Your task to perform on an android device: uninstall "McDonald's" Image 0: 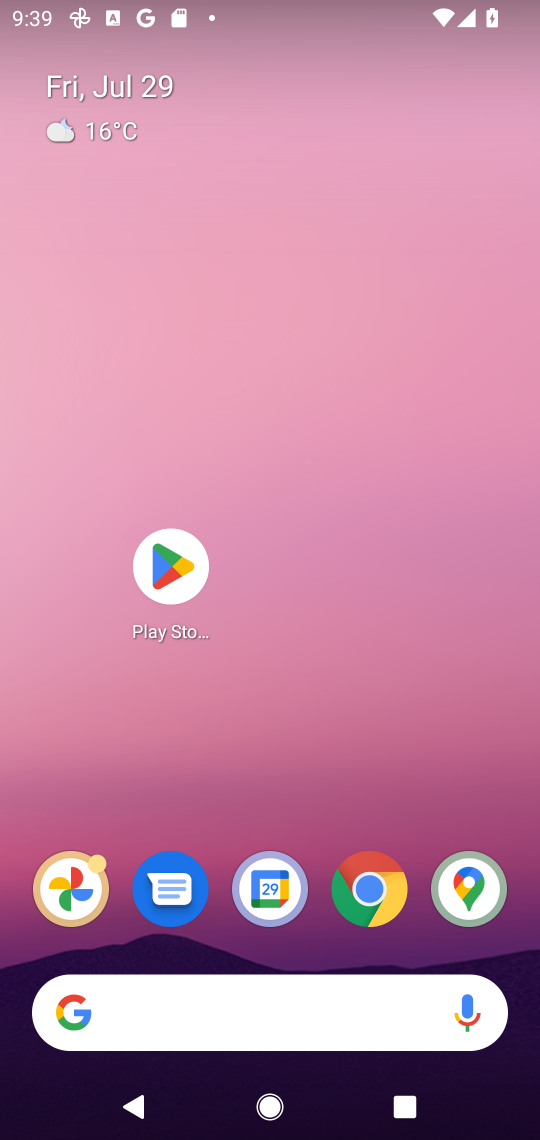
Step 0: click (166, 575)
Your task to perform on an android device: uninstall "McDonald's" Image 1: 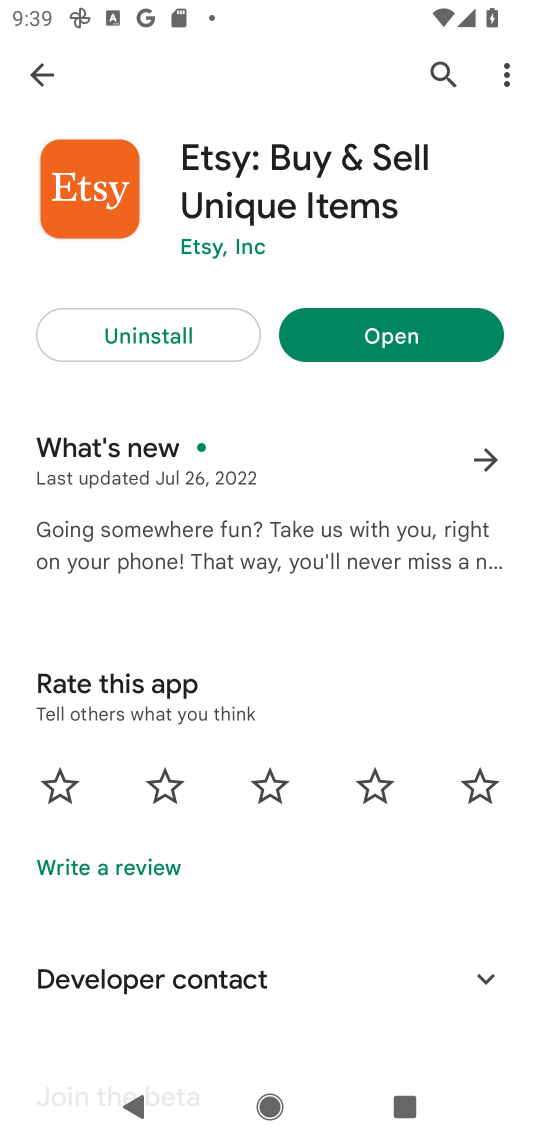
Step 1: click (442, 61)
Your task to perform on an android device: uninstall "McDonald's" Image 2: 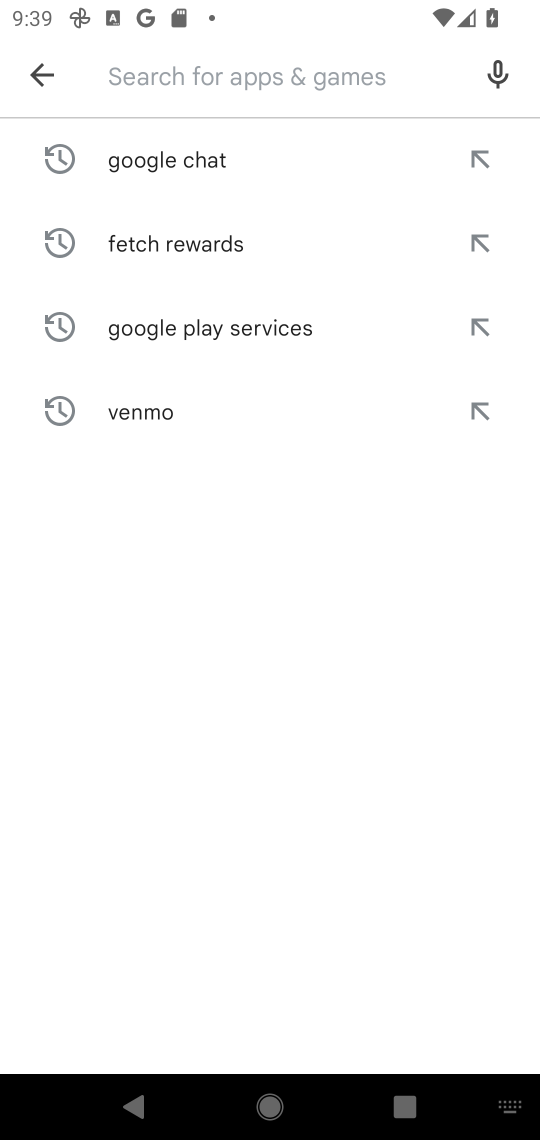
Step 2: type "McDonald's"
Your task to perform on an android device: uninstall "McDonald's" Image 3: 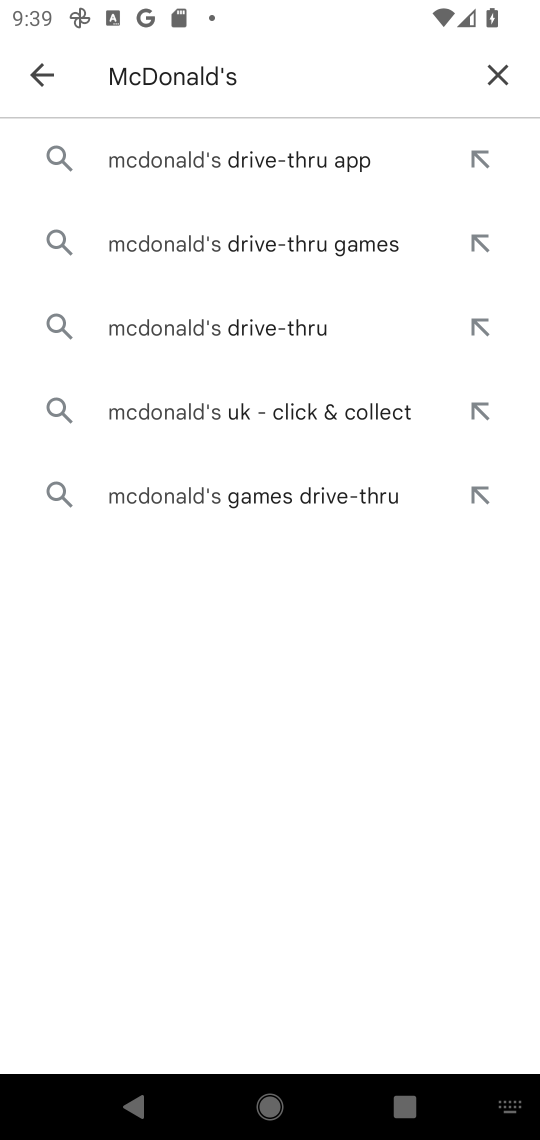
Step 3: click (190, 156)
Your task to perform on an android device: uninstall "McDonald's" Image 4: 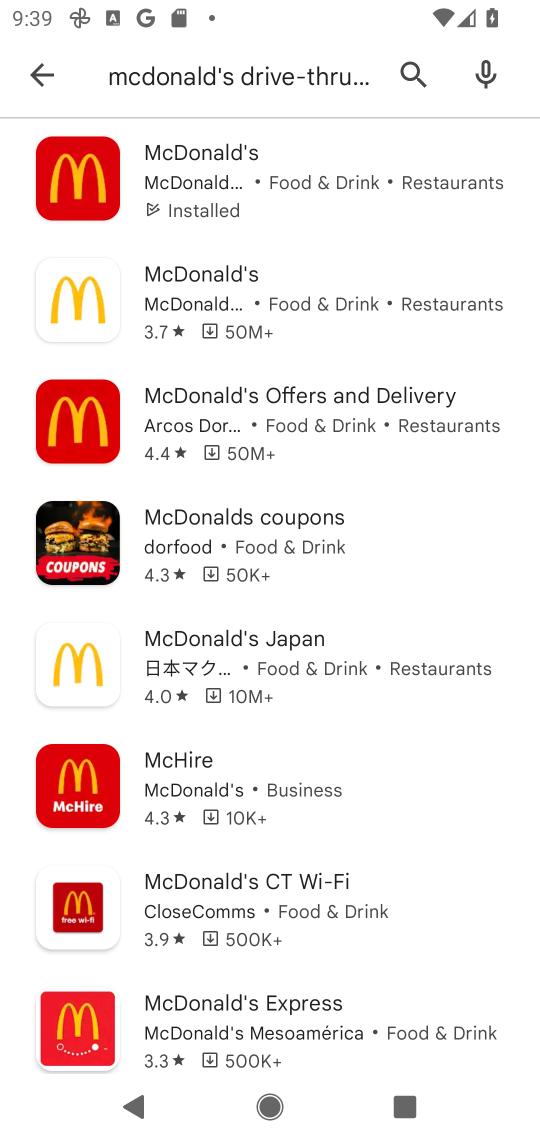
Step 4: click (212, 198)
Your task to perform on an android device: uninstall "McDonald's" Image 5: 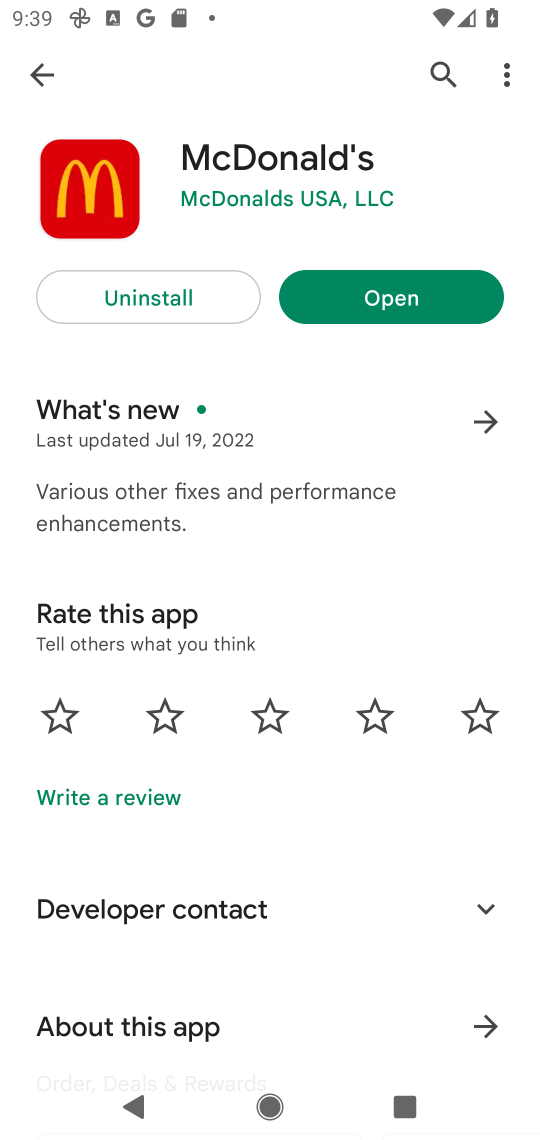
Step 5: click (147, 288)
Your task to perform on an android device: uninstall "McDonald's" Image 6: 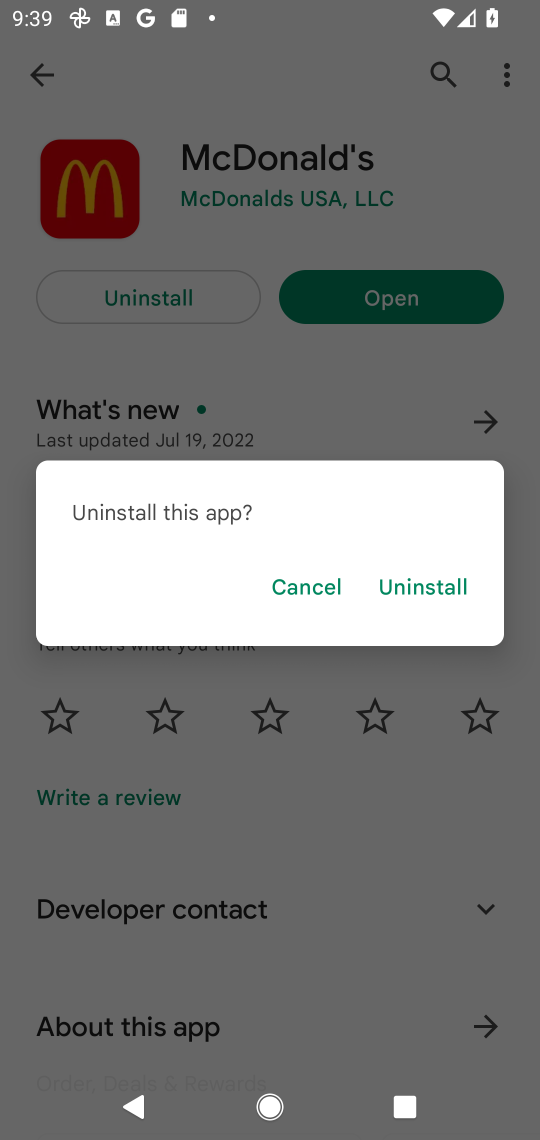
Step 6: click (399, 589)
Your task to perform on an android device: uninstall "McDonald's" Image 7: 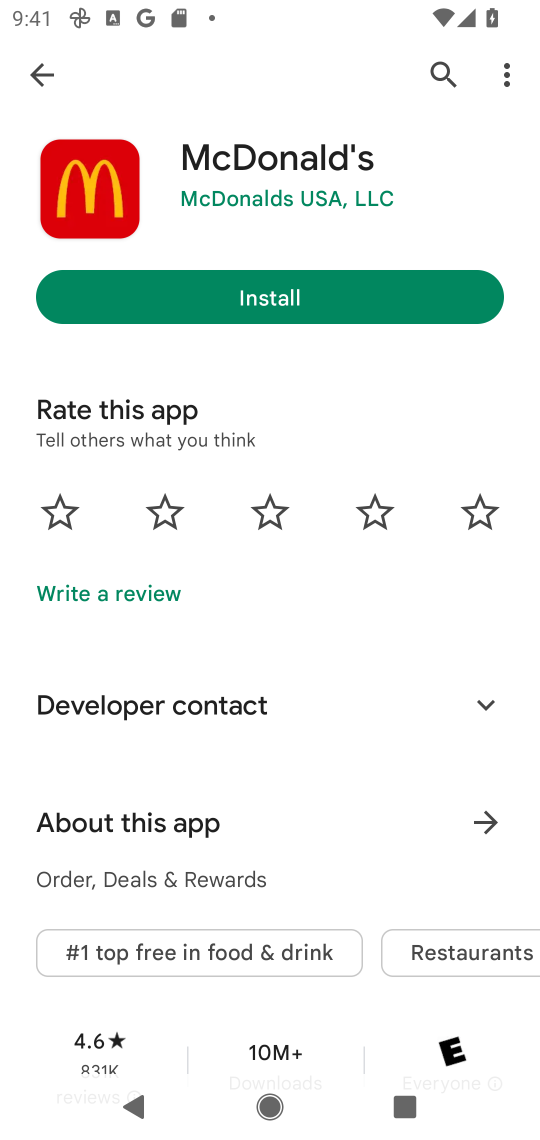
Step 7: task complete